Your task to perform on an android device: check data usage Image 0: 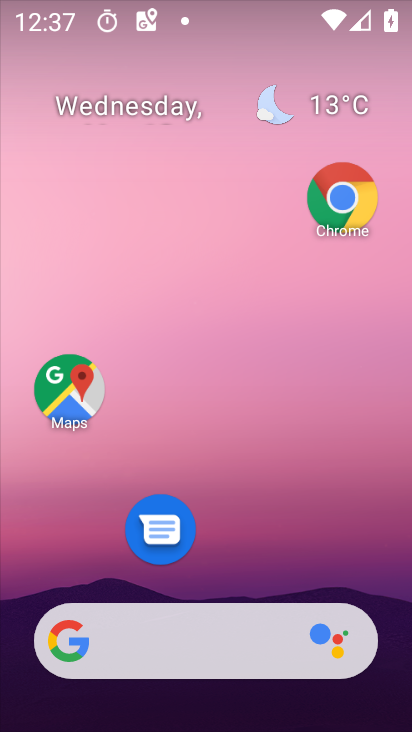
Step 0: drag from (232, 9) to (208, 429)
Your task to perform on an android device: check data usage Image 1: 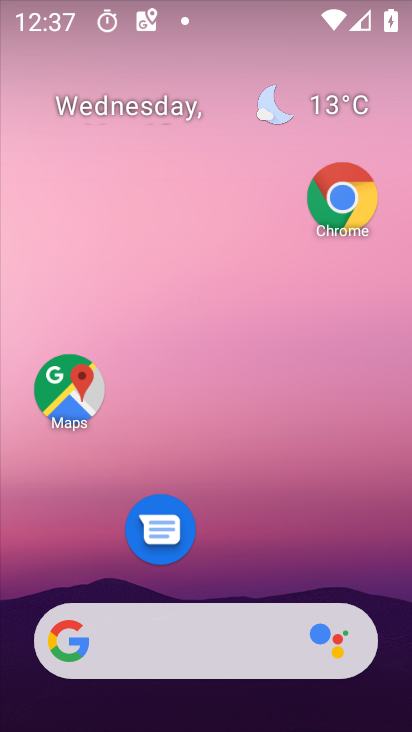
Step 1: drag from (207, 5) to (154, 493)
Your task to perform on an android device: check data usage Image 2: 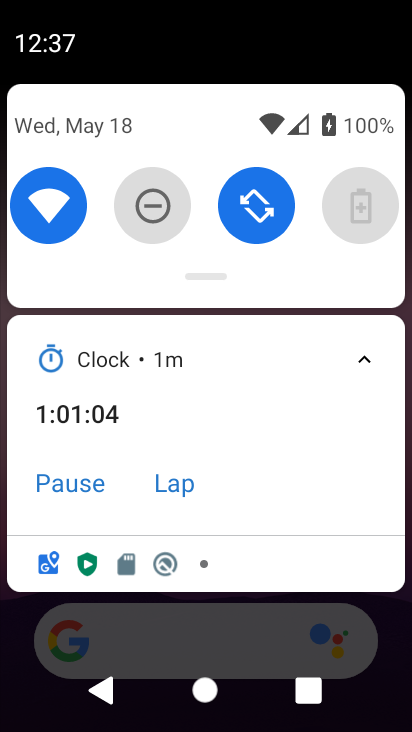
Step 2: drag from (217, 144) to (197, 527)
Your task to perform on an android device: check data usage Image 3: 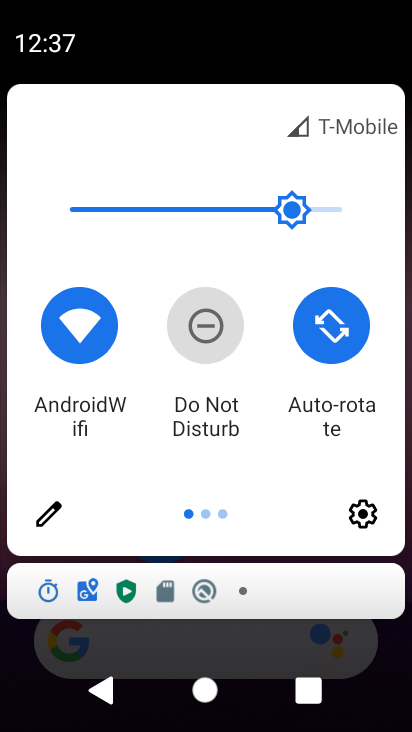
Step 3: drag from (384, 459) to (227, 465)
Your task to perform on an android device: check data usage Image 4: 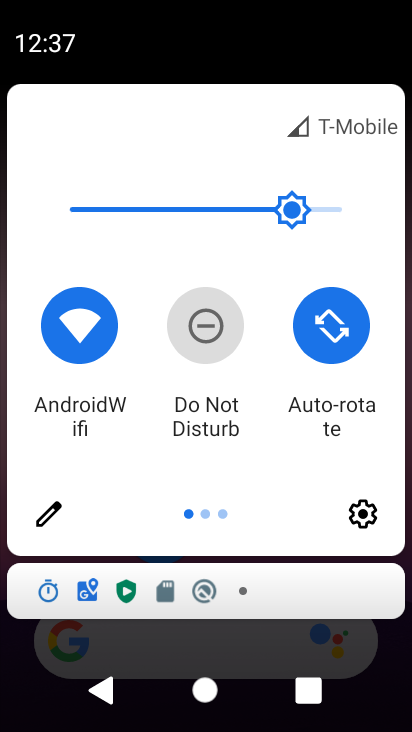
Step 4: drag from (293, 451) to (24, 494)
Your task to perform on an android device: check data usage Image 5: 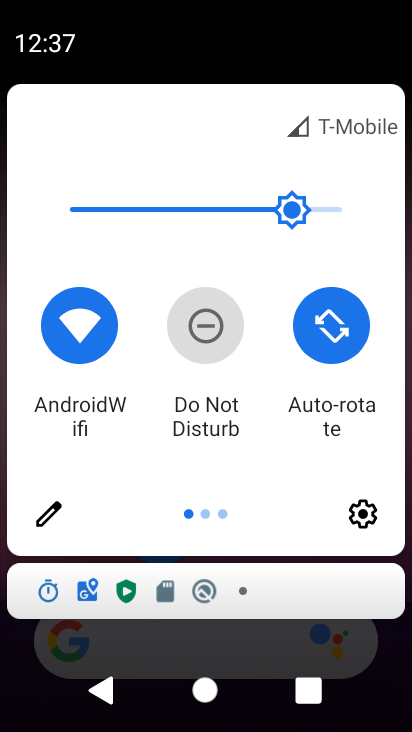
Step 5: drag from (370, 462) to (61, 501)
Your task to perform on an android device: check data usage Image 6: 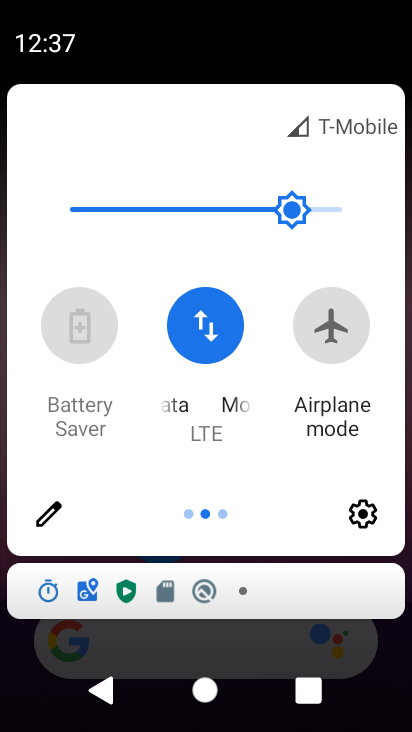
Step 6: click (225, 347)
Your task to perform on an android device: check data usage Image 7: 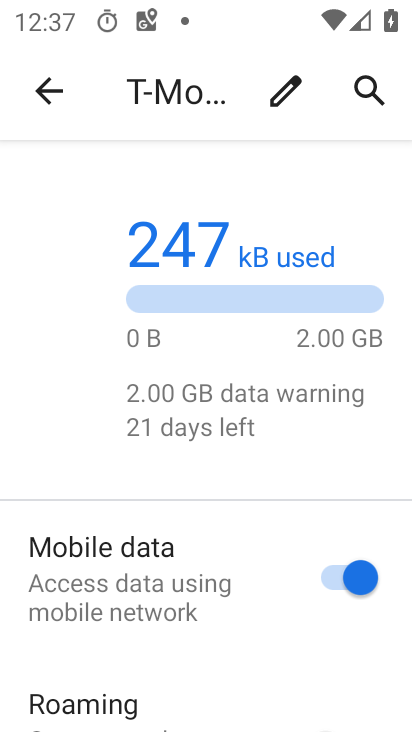
Step 7: task complete